Your task to perform on an android device: Open Yahoo.com Image 0: 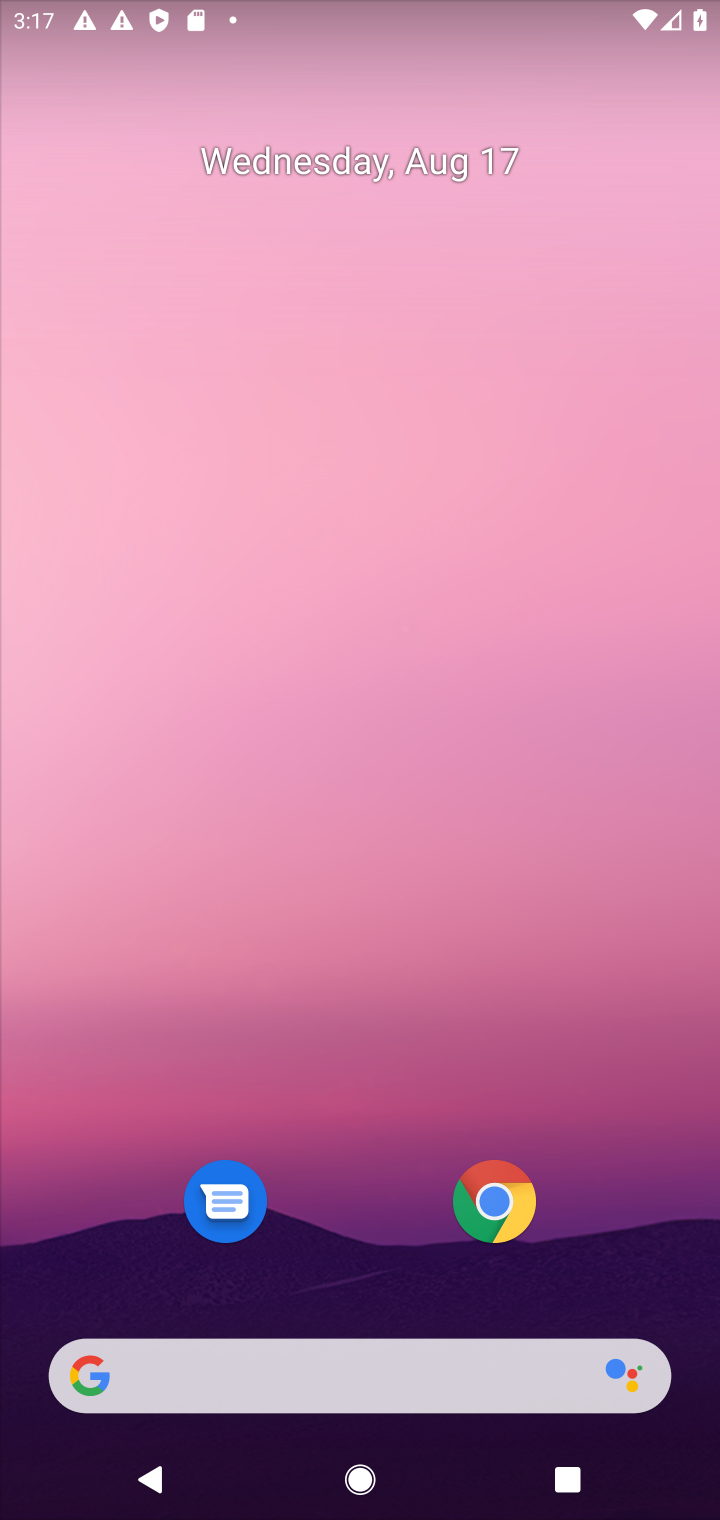
Step 0: press home button
Your task to perform on an android device: Open Yahoo.com Image 1: 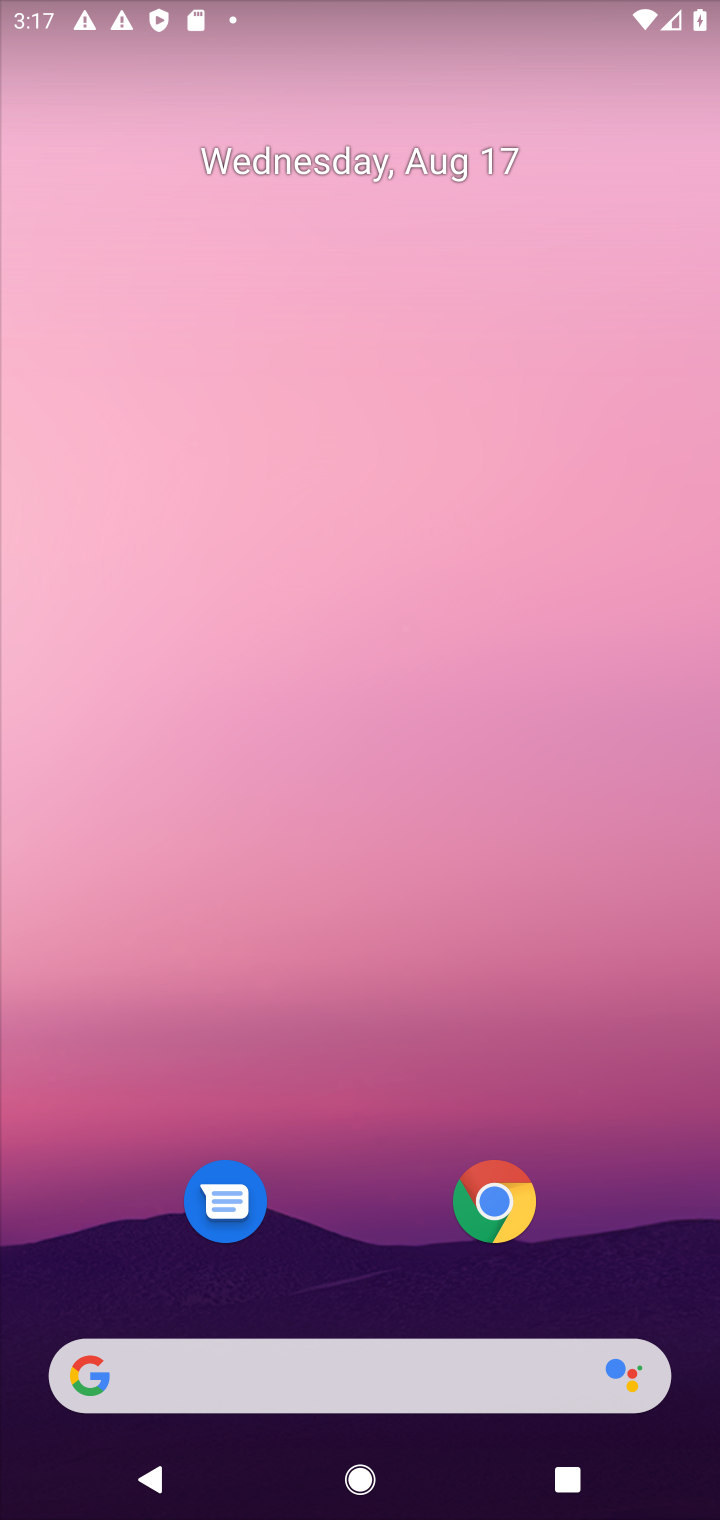
Step 1: drag from (352, 1017) to (320, 3)
Your task to perform on an android device: Open Yahoo.com Image 2: 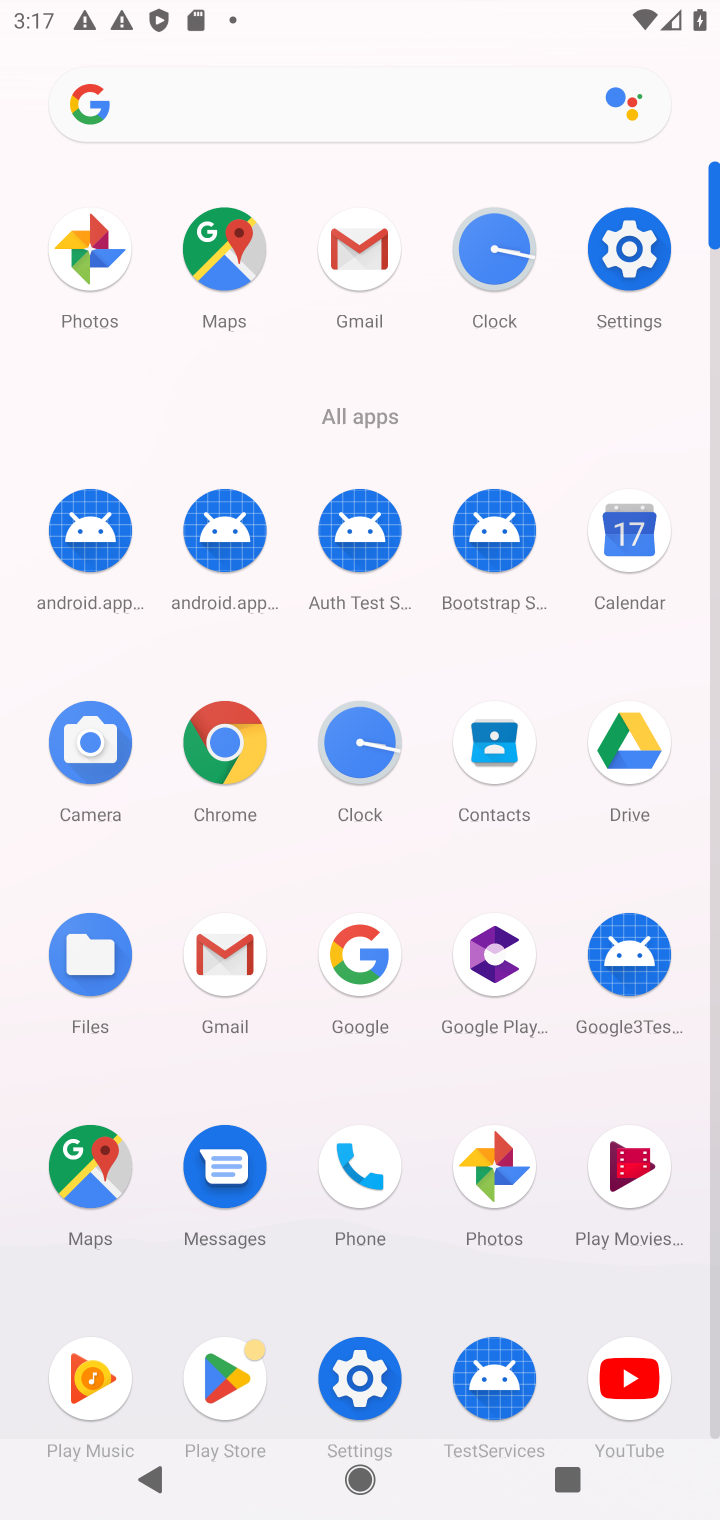
Step 2: click (234, 772)
Your task to perform on an android device: Open Yahoo.com Image 3: 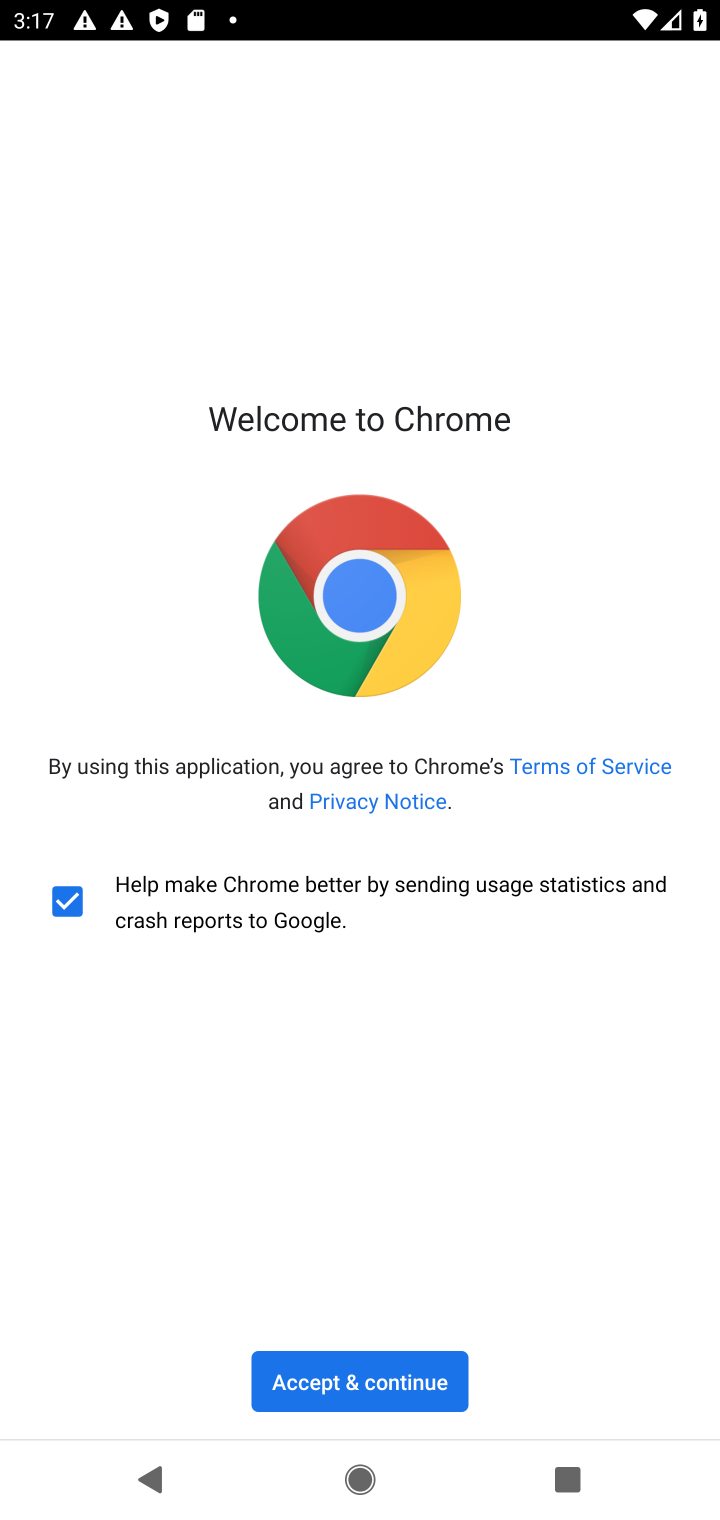
Step 3: click (422, 1375)
Your task to perform on an android device: Open Yahoo.com Image 4: 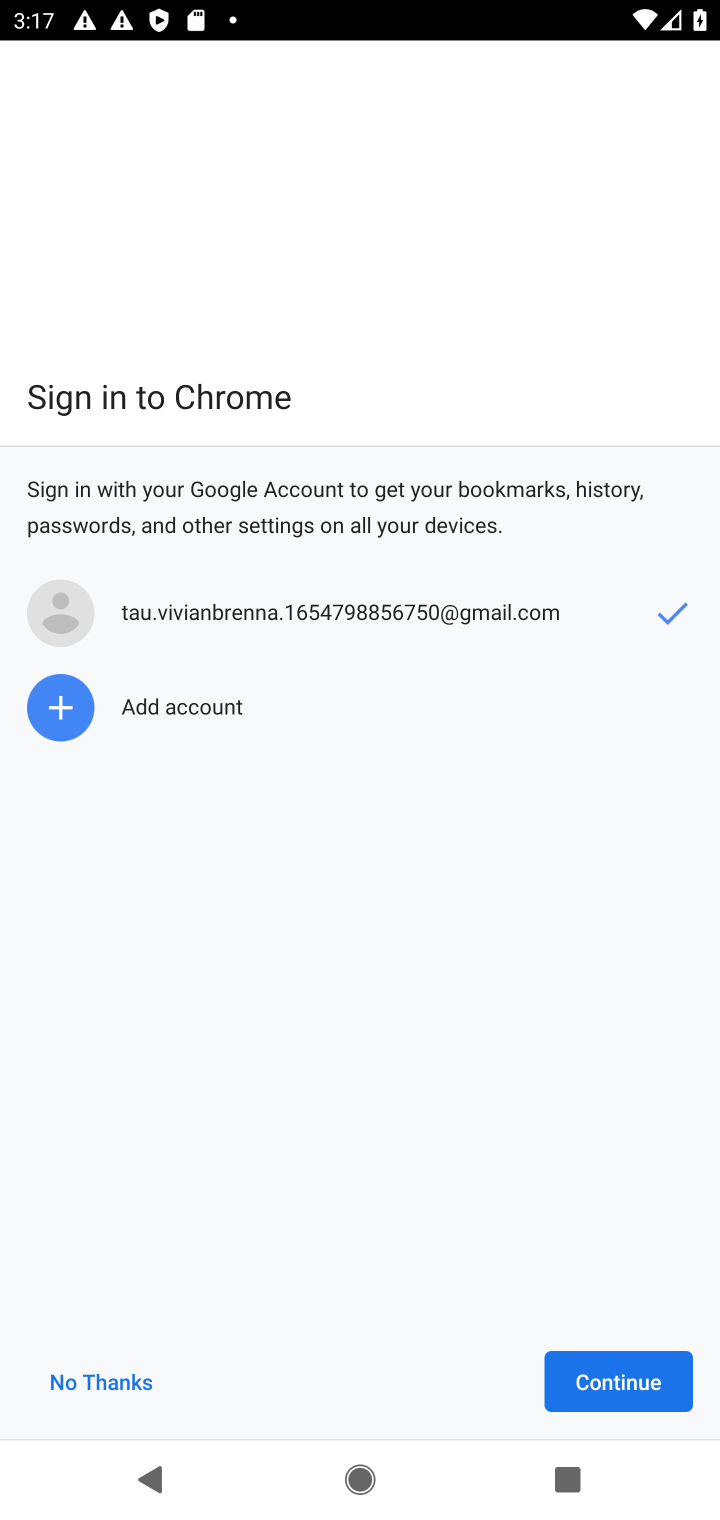
Step 4: click (662, 1390)
Your task to perform on an android device: Open Yahoo.com Image 5: 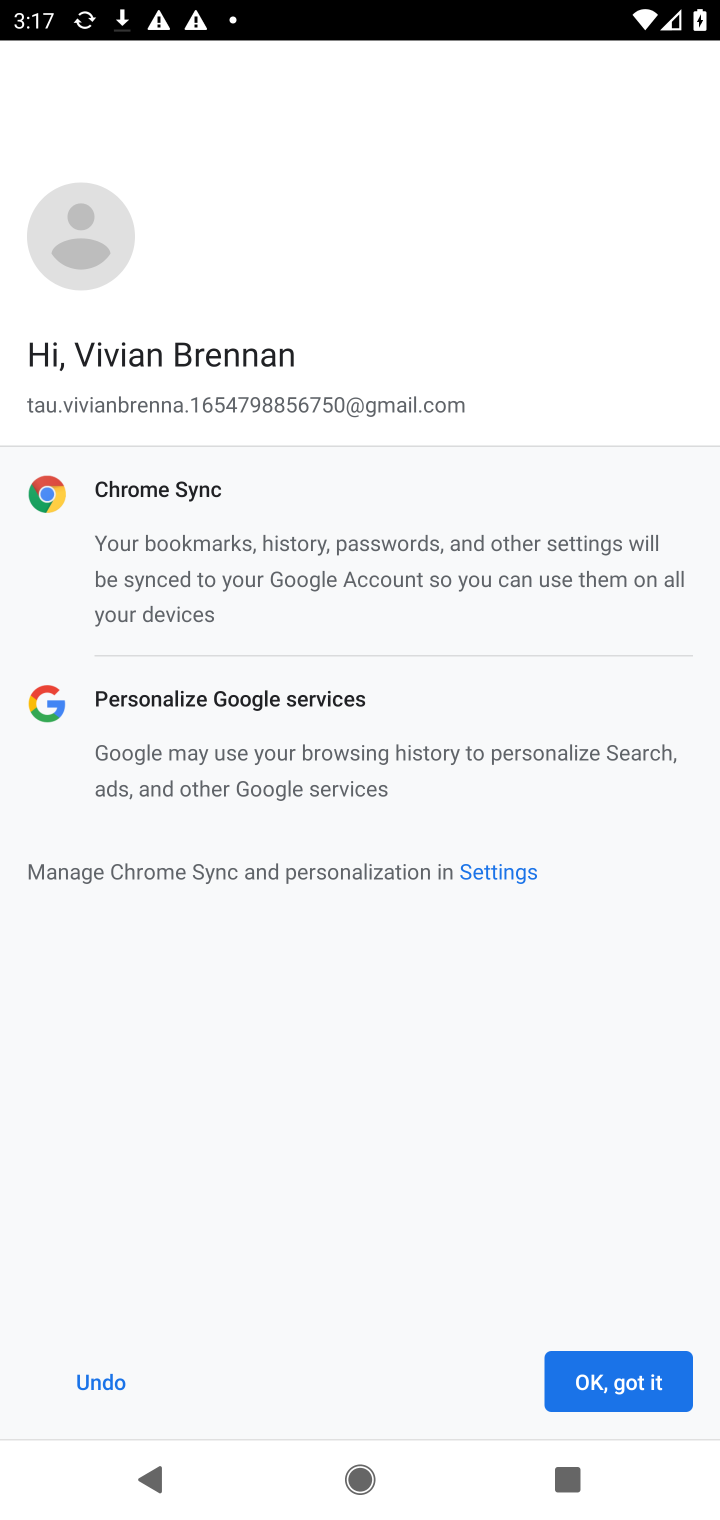
Step 5: click (638, 1369)
Your task to perform on an android device: Open Yahoo.com Image 6: 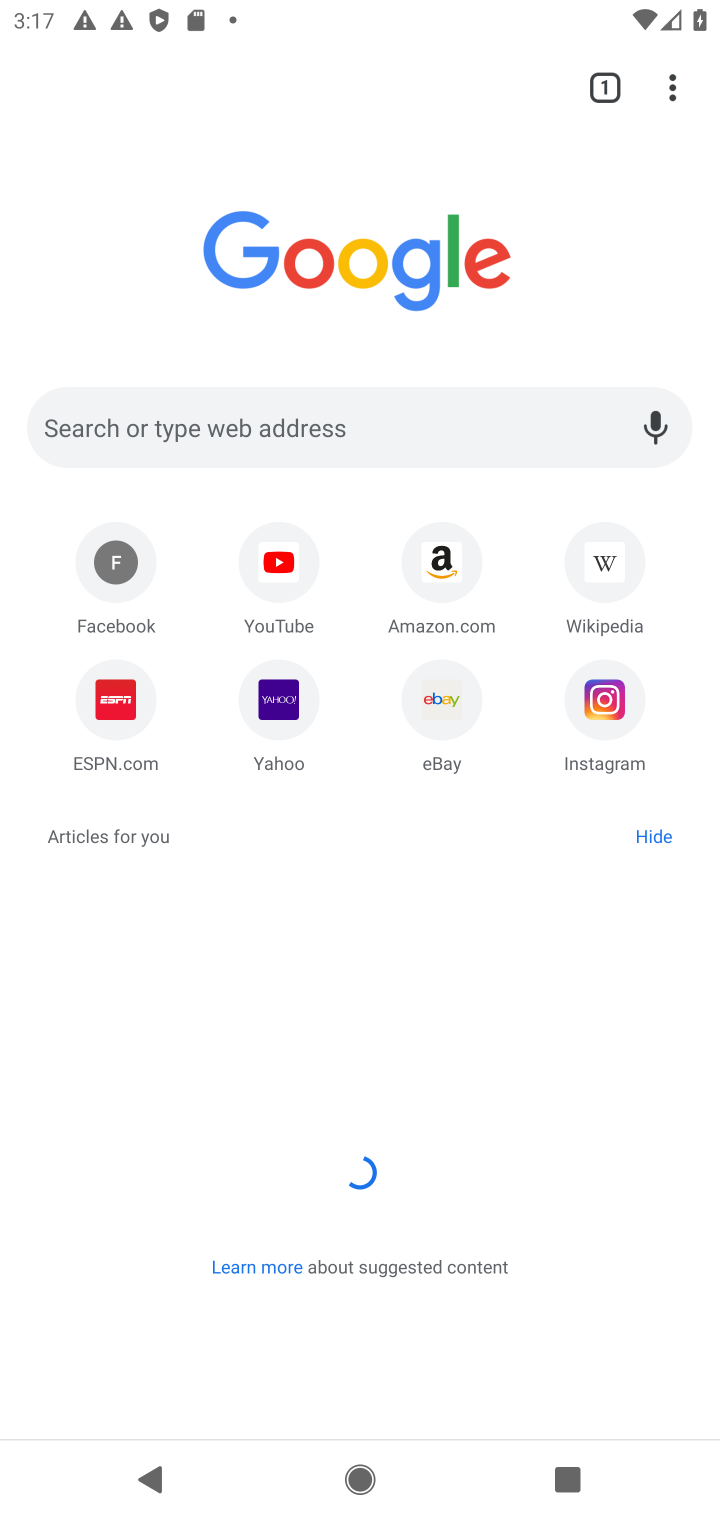
Step 6: click (300, 739)
Your task to perform on an android device: Open Yahoo.com Image 7: 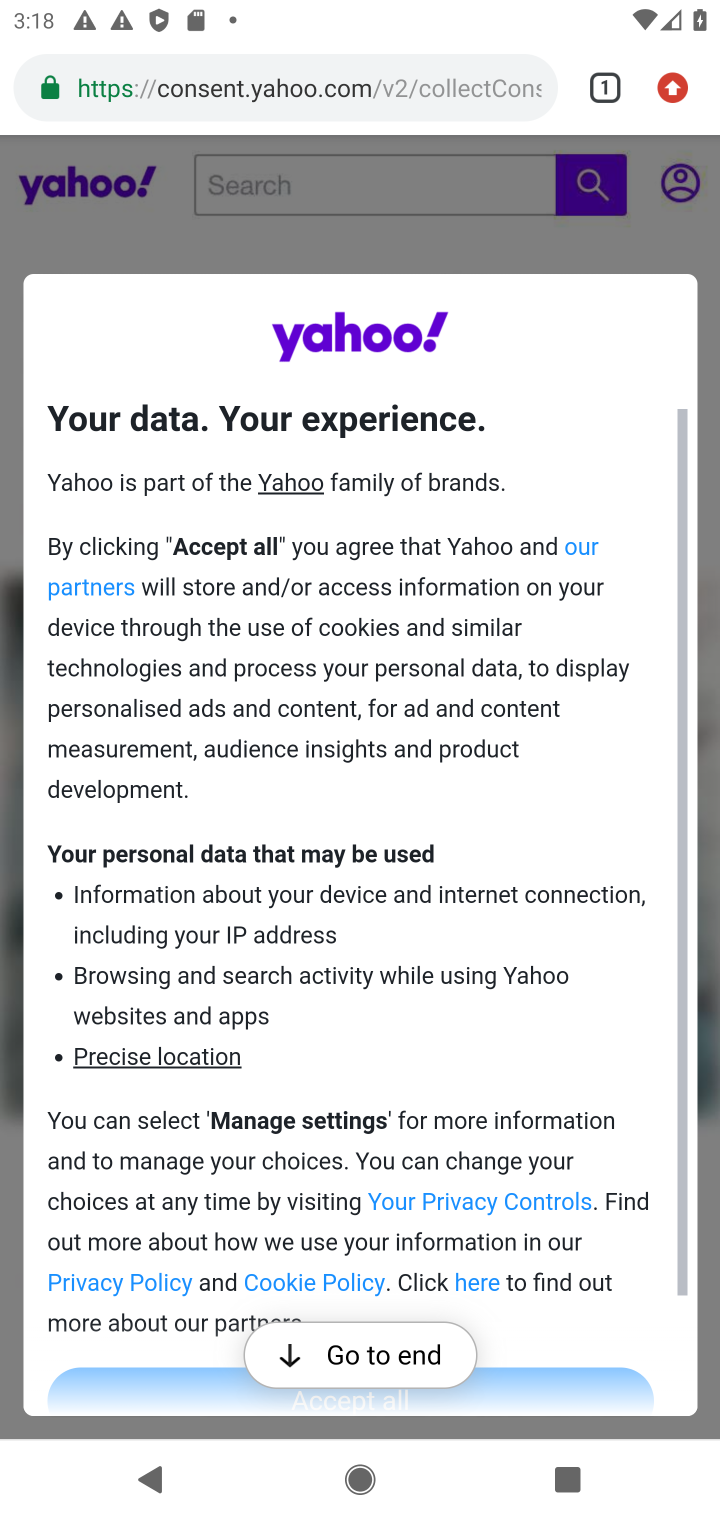
Step 7: task complete